Your task to perform on an android device: turn on data saver in the chrome app Image 0: 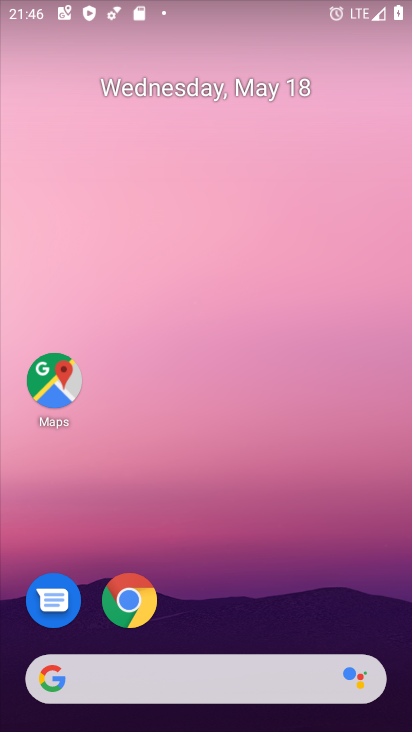
Step 0: click (122, 604)
Your task to perform on an android device: turn on data saver in the chrome app Image 1: 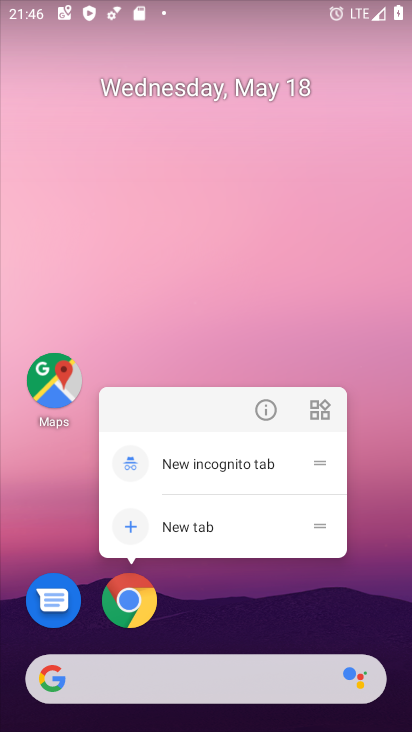
Step 1: click (131, 602)
Your task to perform on an android device: turn on data saver in the chrome app Image 2: 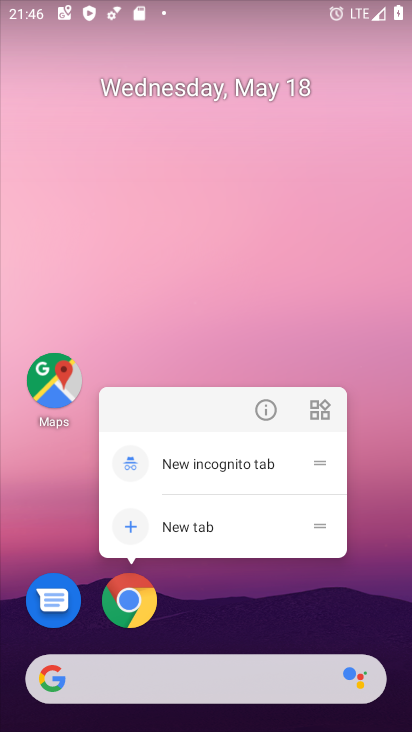
Step 2: click (131, 602)
Your task to perform on an android device: turn on data saver in the chrome app Image 3: 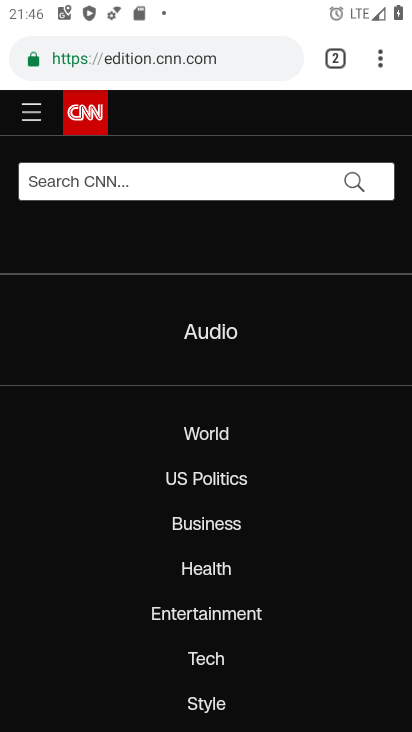
Step 3: drag from (380, 57) to (180, 642)
Your task to perform on an android device: turn on data saver in the chrome app Image 4: 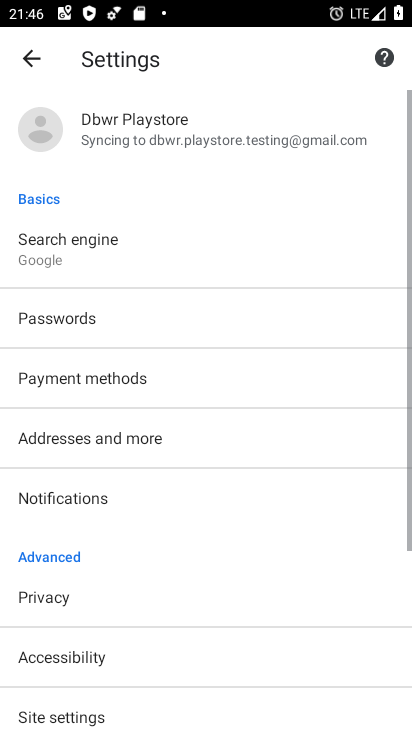
Step 4: drag from (181, 632) to (334, 114)
Your task to perform on an android device: turn on data saver in the chrome app Image 5: 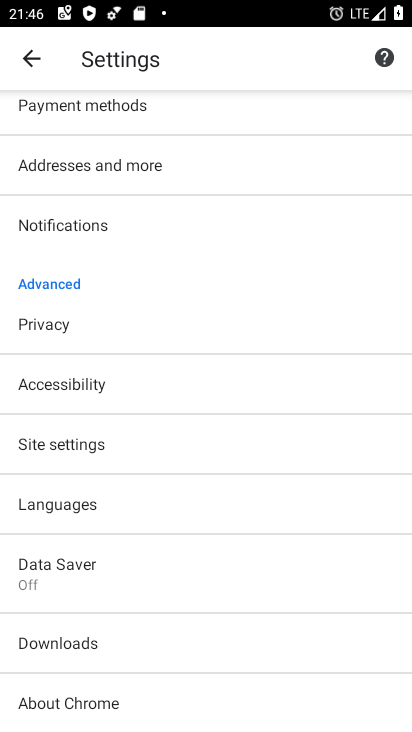
Step 5: click (53, 574)
Your task to perform on an android device: turn on data saver in the chrome app Image 6: 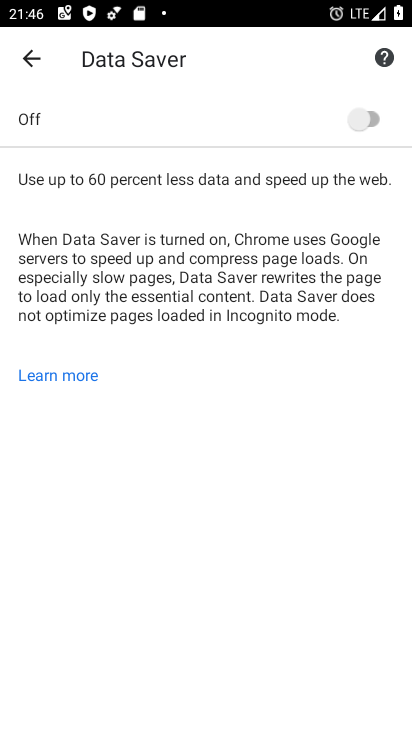
Step 6: click (363, 124)
Your task to perform on an android device: turn on data saver in the chrome app Image 7: 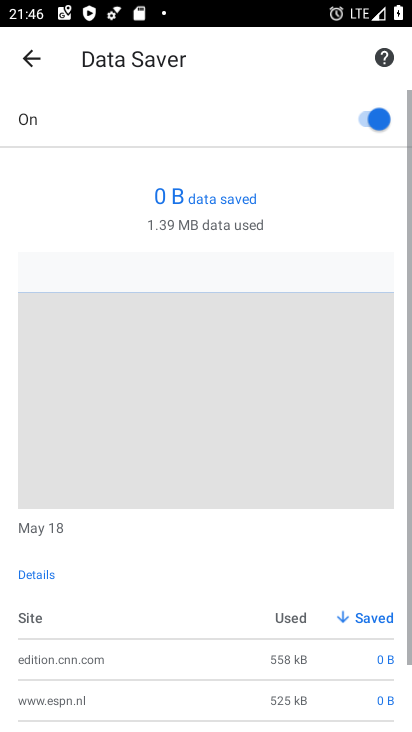
Step 7: task complete